Your task to perform on an android device: What's the weather today? Image 0: 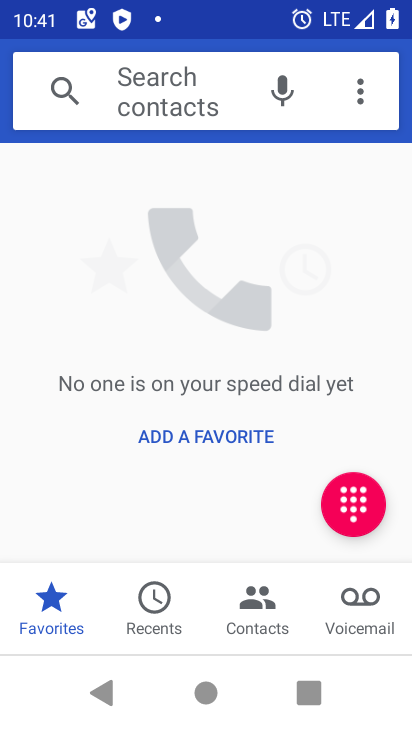
Step 0: press home button
Your task to perform on an android device: What's the weather today? Image 1: 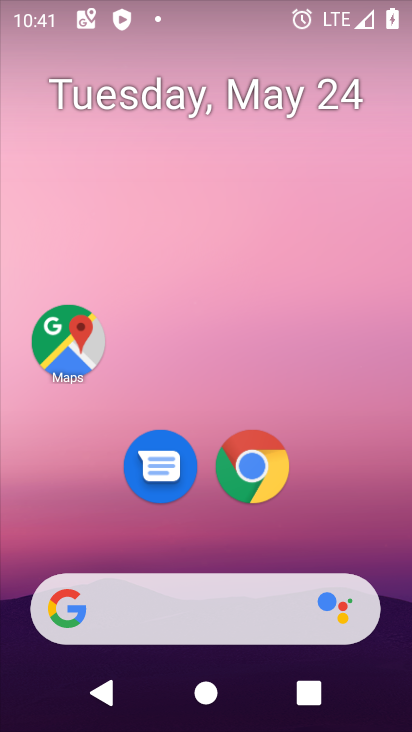
Step 1: click (219, 614)
Your task to perform on an android device: What's the weather today? Image 2: 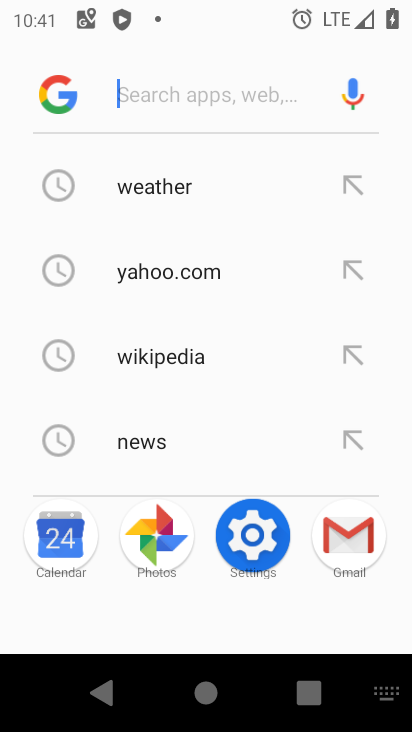
Step 2: click (156, 192)
Your task to perform on an android device: What's the weather today? Image 3: 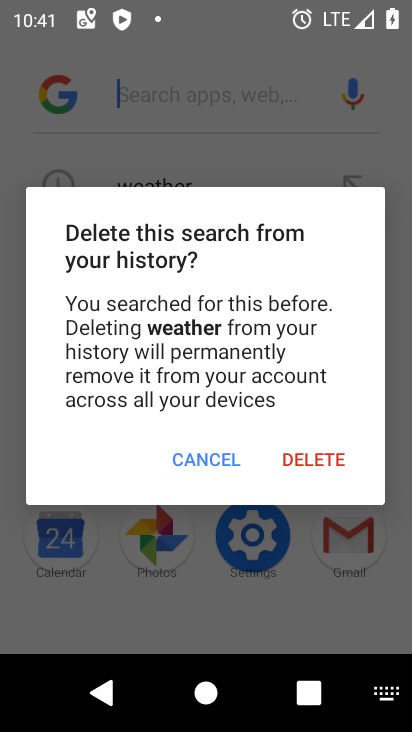
Step 3: click (235, 455)
Your task to perform on an android device: What's the weather today? Image 4: 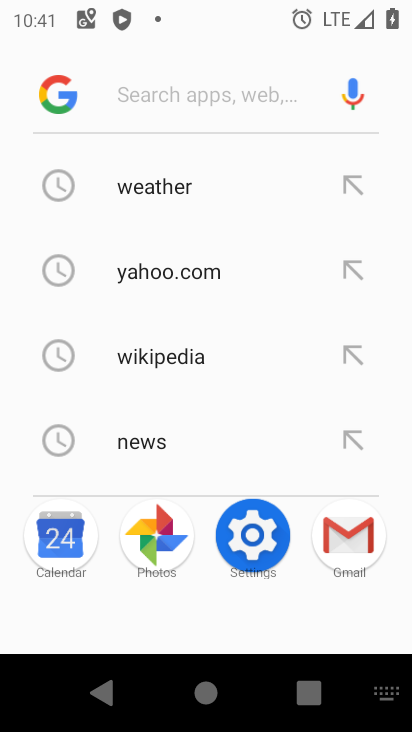
Step 4: click (188, 198)
Your task to perform on an android device: What's the weather today? Image 5: 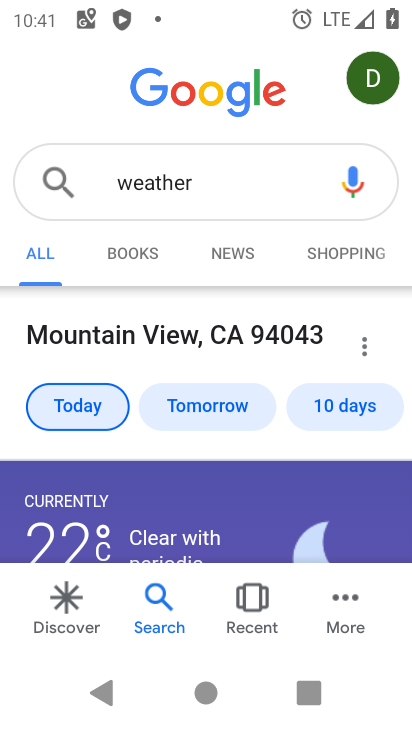
Step 5: click (92, 401)
Your task to perform on an android device: What's the weather today? Image 6: 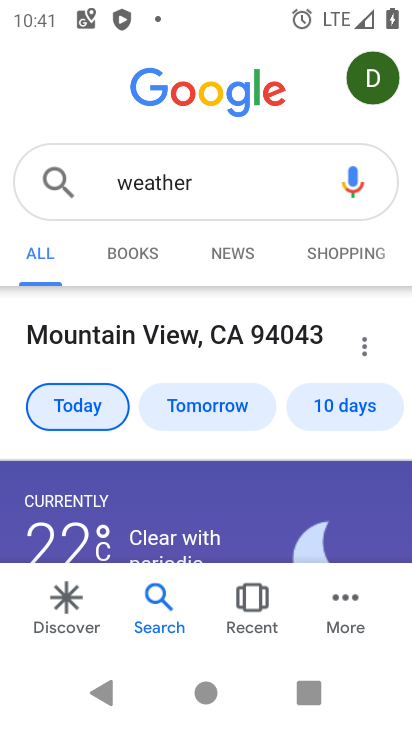
Step 6: drag from (303, 488) to (282, 281)
Your task to perform on an android device: What's the weather today? Image 7: 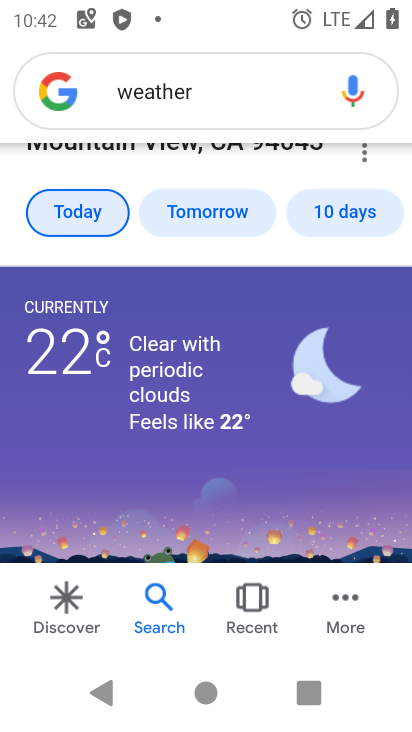
Step 7: click (61, 195)
Your task to perform on an android device: What's the weather today? Image 8: 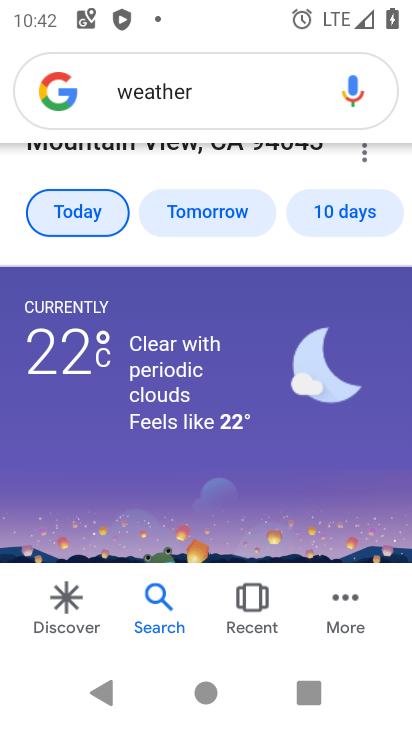
Step 8: task complete